Your task to perform on an android device: Open Youtube and go to "Your channel" Image 0: 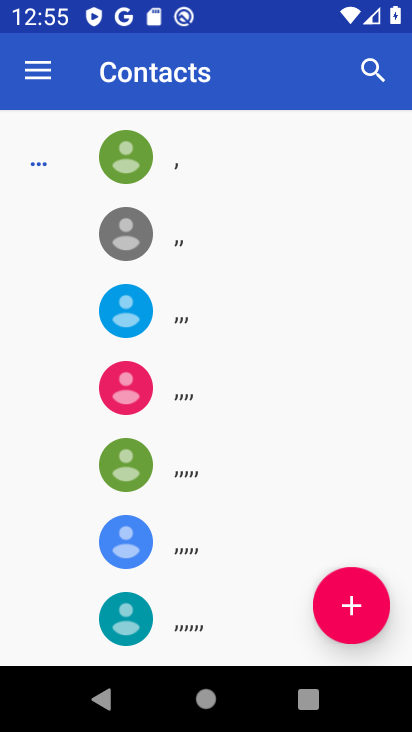
Step 0: press home button
Your task to perform on an android device: Open Youtube and go to "Your channel" Image 1: 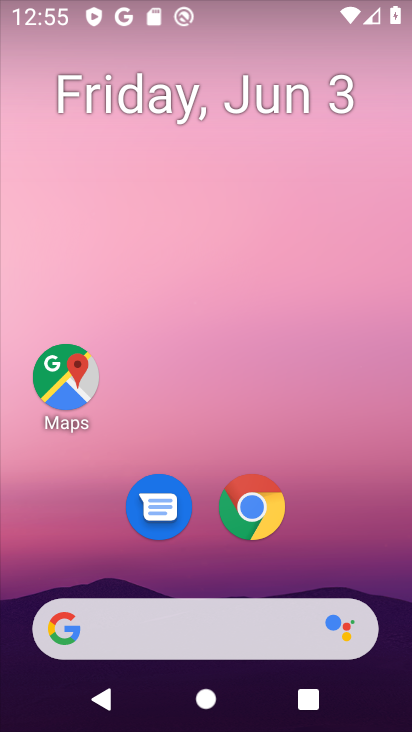
Step 1: drag from (359, 517) to (336, 106)
Your task to perform on an android device: Open Youtube and go to "Your channel" Image 2: 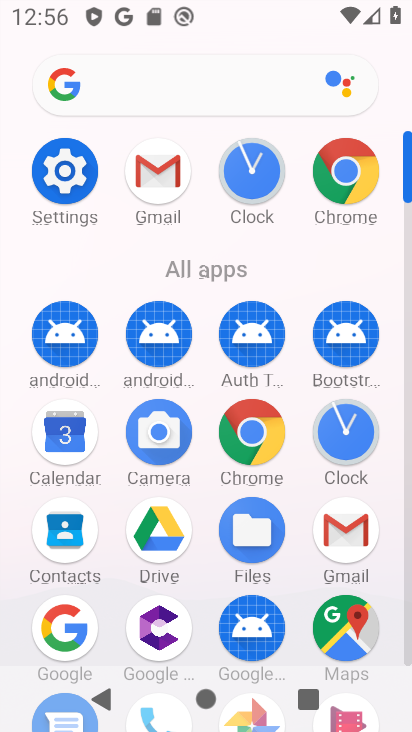
Step 2: drag from (227, 604) to (273, 236)
Your task to perform on an android device: Open Youtube and go to "Your channel" Image 3: 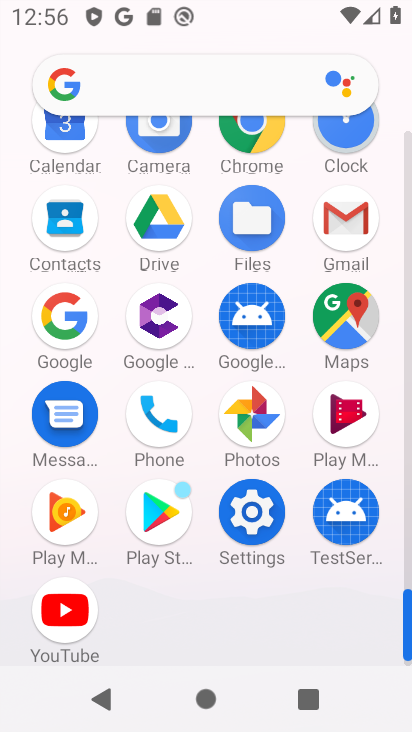
Step 3: click (80, 615)
Your task to perform on an android device: Open Youtube and go to "Your channel" Image 4: 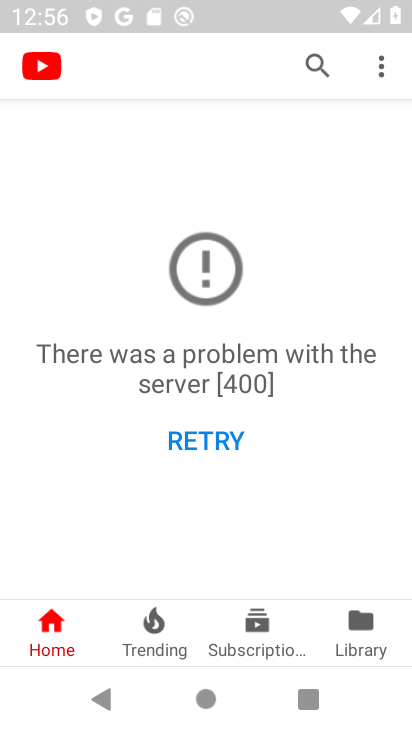
Step 4: click (347, 629)
Your task to perform on an android device: Open Youtube and go to "Your channel" Image 5: 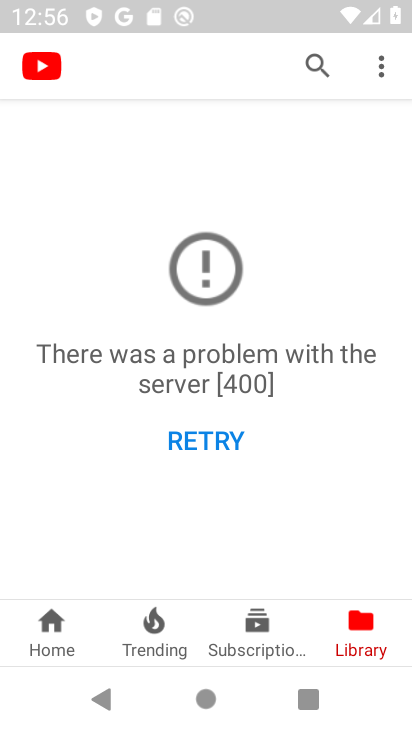
Step 5: task complete